Your task to perform on an android device: What's the weather going to be this weekend? Image 0: 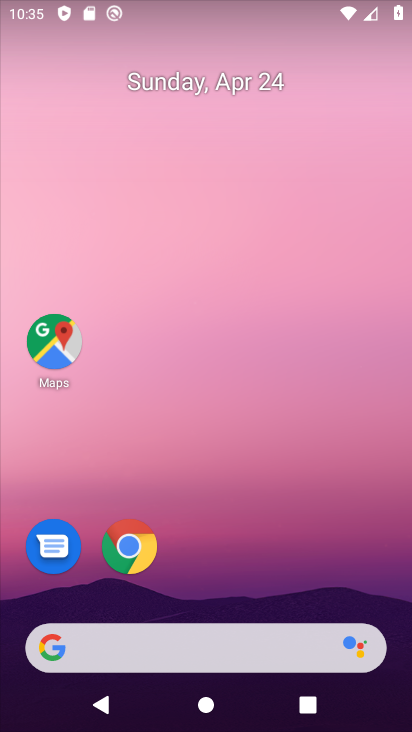
Step 0: drag from (288, 600) to (269, 86)
Your task to perform on an android device: What's the weather going to be this weekend? Image 1: 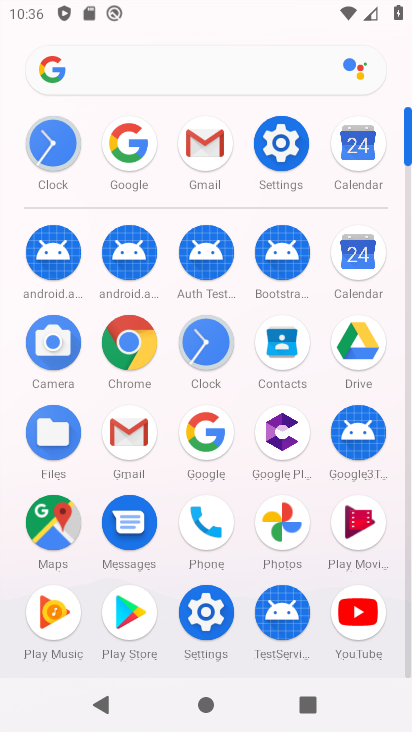
Step 1: click (201, 425)
Your task to perform on an android device: What's the weather going to be this weekend? Image 2: 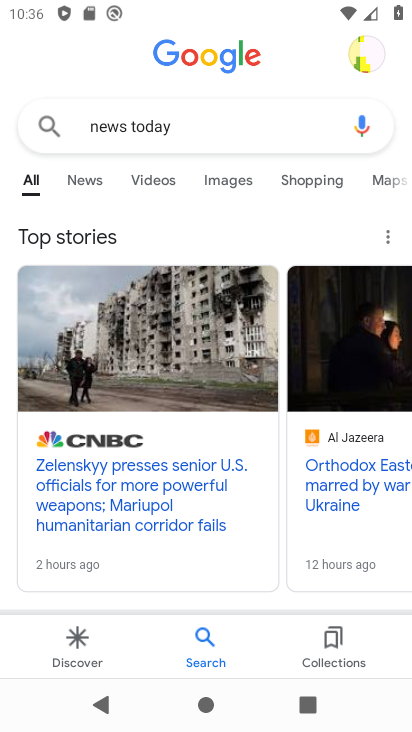
Step 2: click (269, 137)
Your task to perform on an android device: What's the weather going to be this weekend? Image 3: 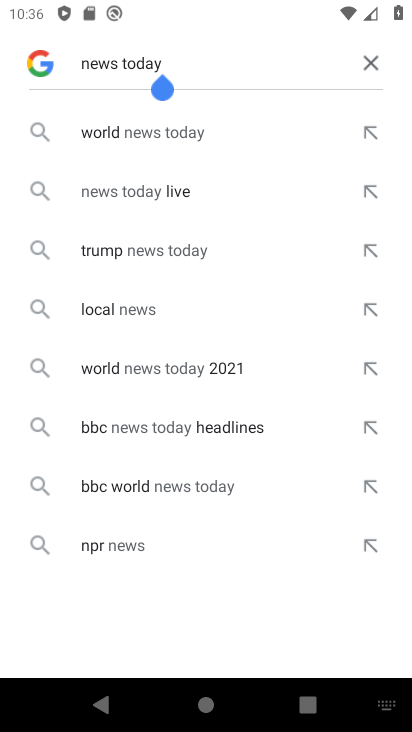
Step 3: click (368, 66)
Your task to perform on an android device: What's the weather going to be this weekend? Image 4: 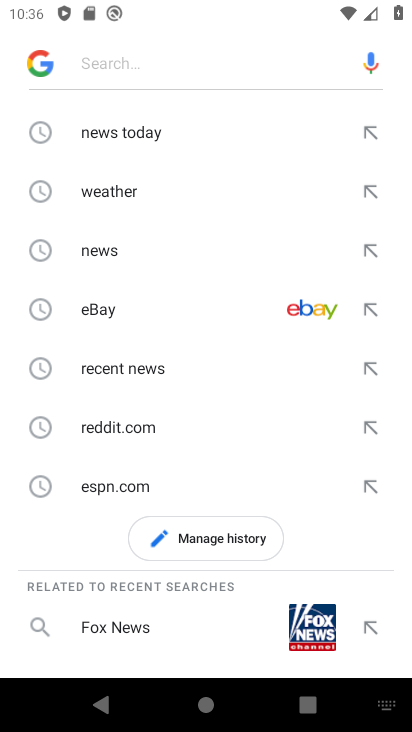
Step 4: click (124, 199)
Your task to perform on an android device: What's the weather going to be this weekend? Image 5: 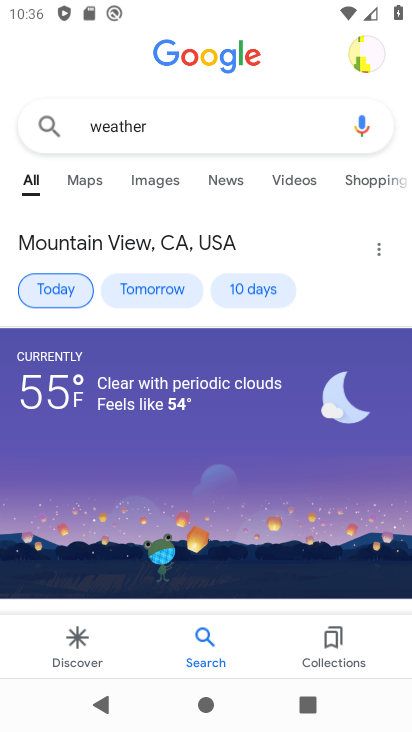
Step 5: task complete